Your task to perform on an android device: Is it going to rain tomorrow? Image 0: 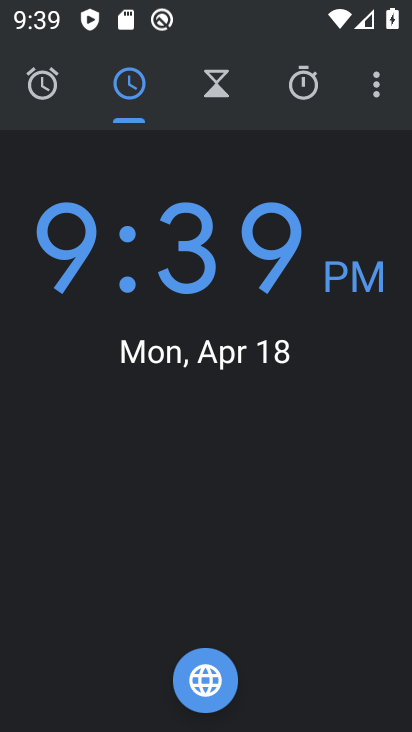
Step 0: press home button
Your task to perform on an android device: Is it going to rain tomorrow? Image 1: 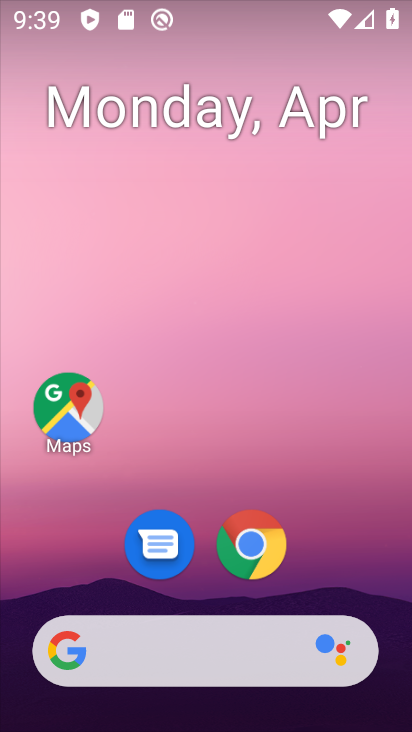
Step 1: drag from (341, 572) to (337, 241)
Your task to perform on an android device: Is it going to rain tomorrow? Image 2: 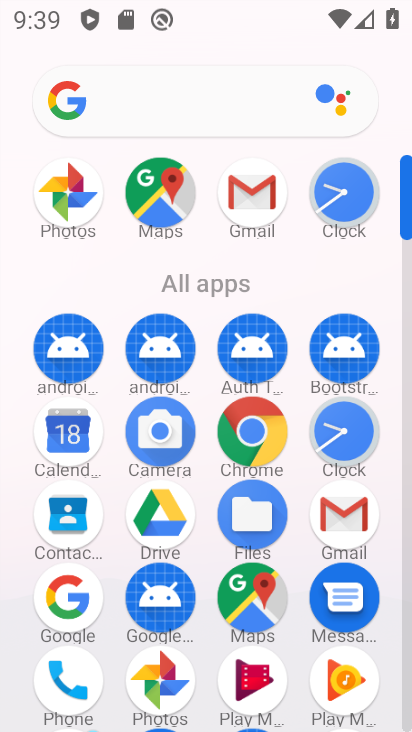
Step 2: click (250, 449)
Your task to perform on an android device: Is it going to rain tomorrow? Image 3: 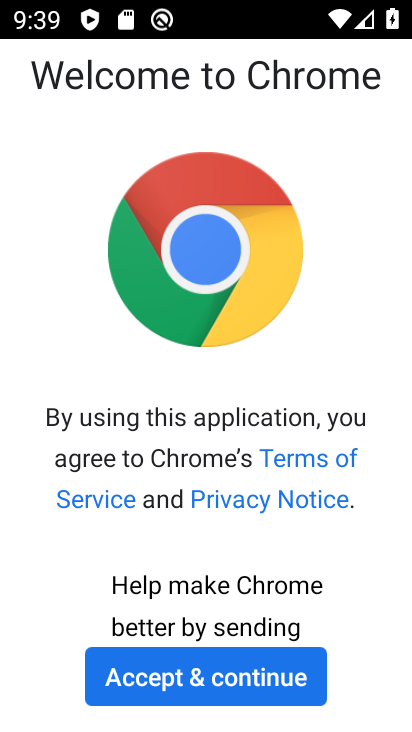
Step 3: click (186, 665)
Your task to perform on an android device: Is it going to rain tomorrow? Image 4: 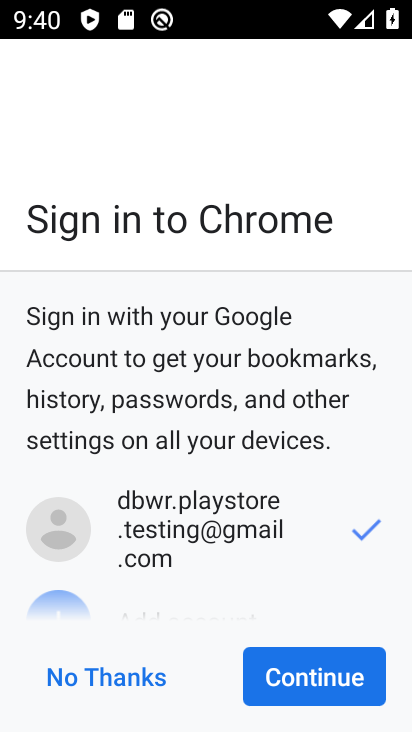
Step 4: click (328, 672)
Your task to perform on an android device: Is it going to rain tomorrow? Image 5: 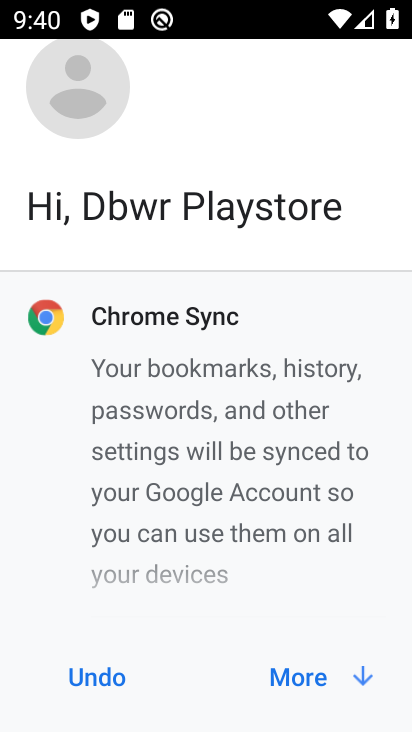
Step 5: click (314, 673)
Your task to perform on an android device: Is it going to rain tomorrow? Image 6: 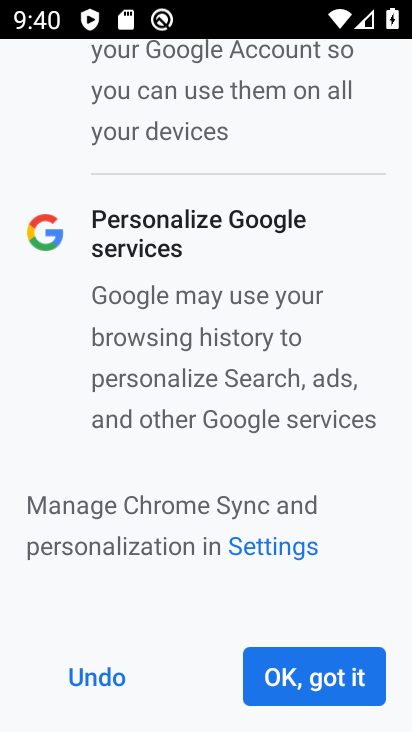
Step 6: click (307, 661)
Your task to perform on an android device: Is it going to rain tomorrow? Image 7: 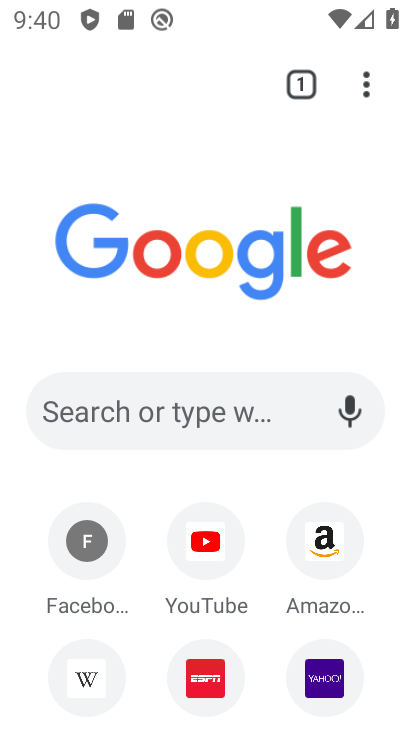
Step 7: click (250, 404)
Your task to perform on an android device: Is it going to rain tomorrow? Image 8: 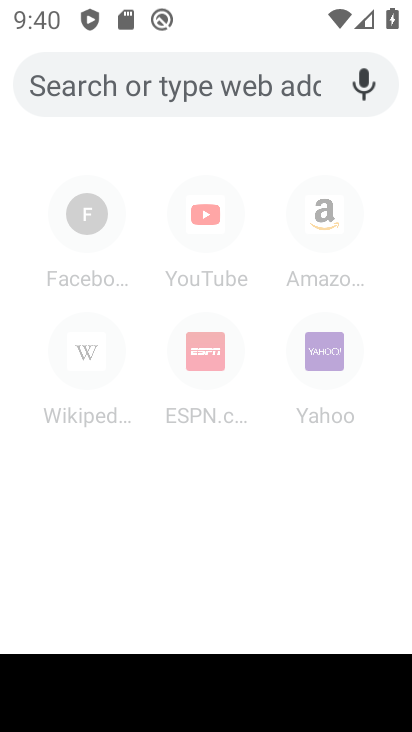
Step 8: type "Is it going to rain tomorrow?"
Your task to perform on an android device: Is it going to rain tomorrow? Image 9: 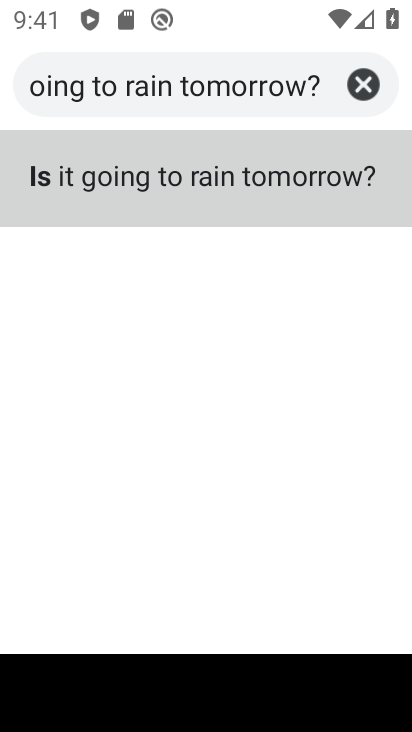
Step 9: click (295, 186)
Your task to perform on an android device: Is it going to rain tomorrow? Image 10: 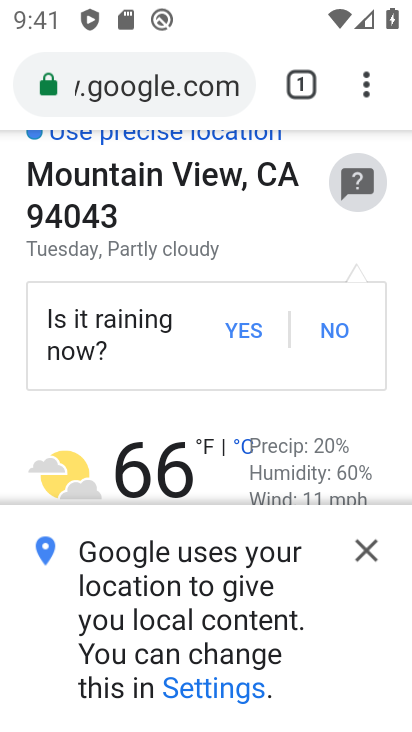
Step 10: task complete